Your task to perform on an android device: create a new album in the google photos Image 0: 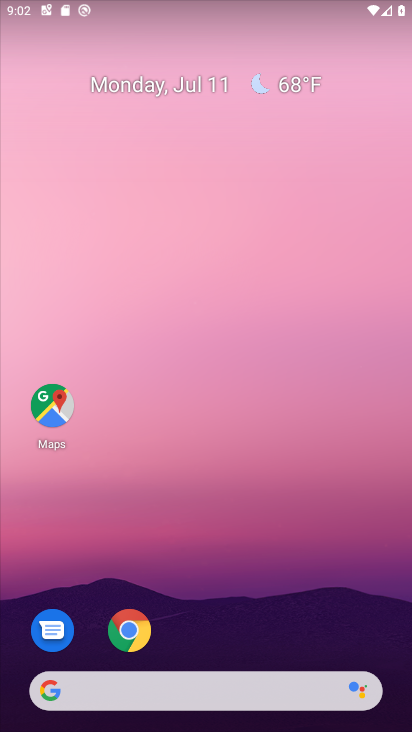
Step 0: drag from (209, 616) to (251, 0)
Your task to perform on an android device: create a new album in the google photos Image 1: 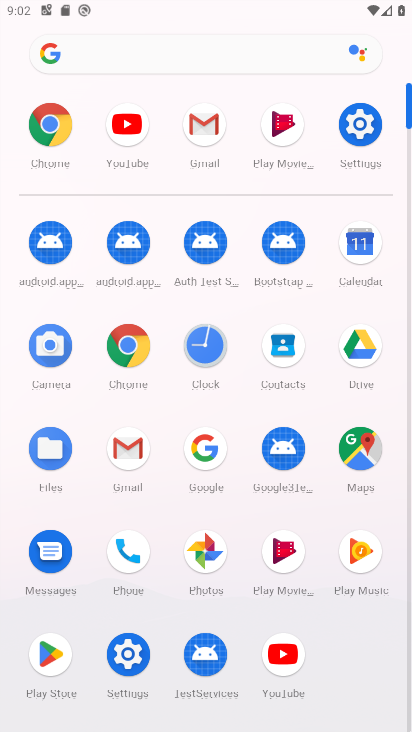
Step 1: click (205, 554)
Your task to perform on an android device: create a new album in the google photos Image 2: 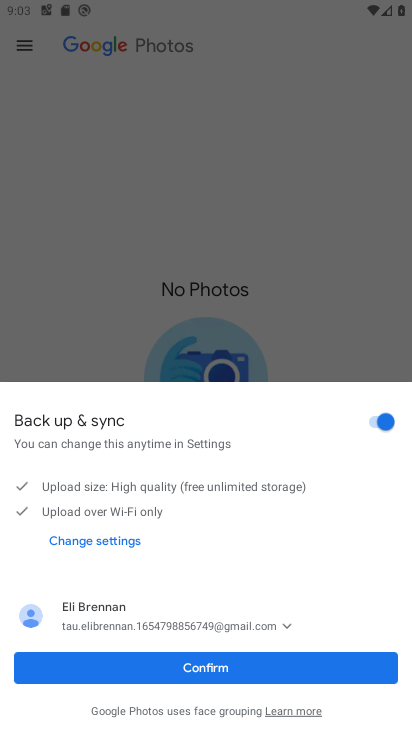
Step 2: click (242, 664)
Your task to perform on an android device: create a new album in the google photos Image 3: 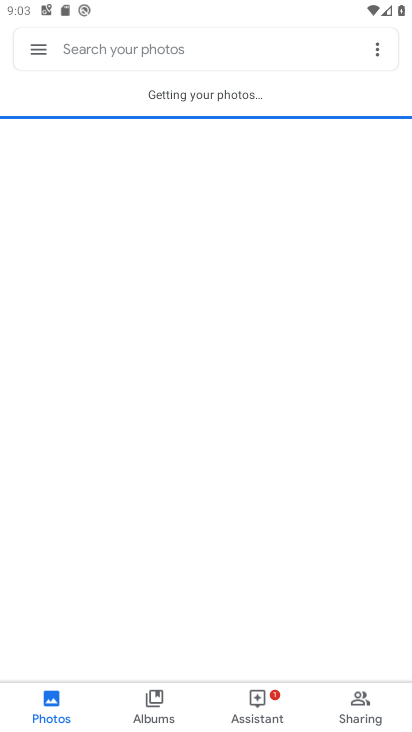
Step 3: click (152, 706)
Your task to perform on an android device: create a new album in the google photos Image 4: 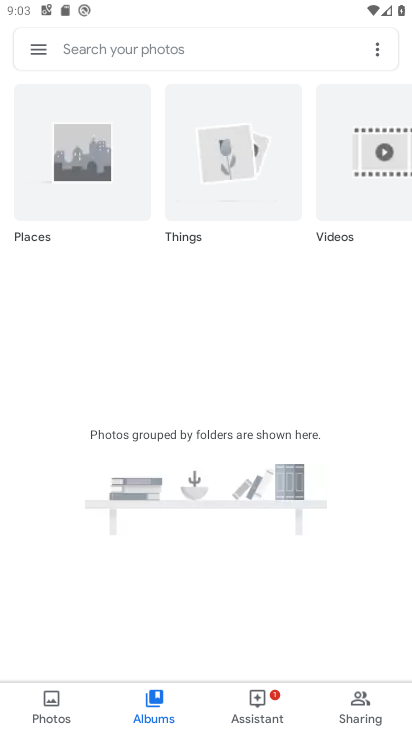
Step 4: task complete